Your task to perform on an android device: check data usage Image 0: 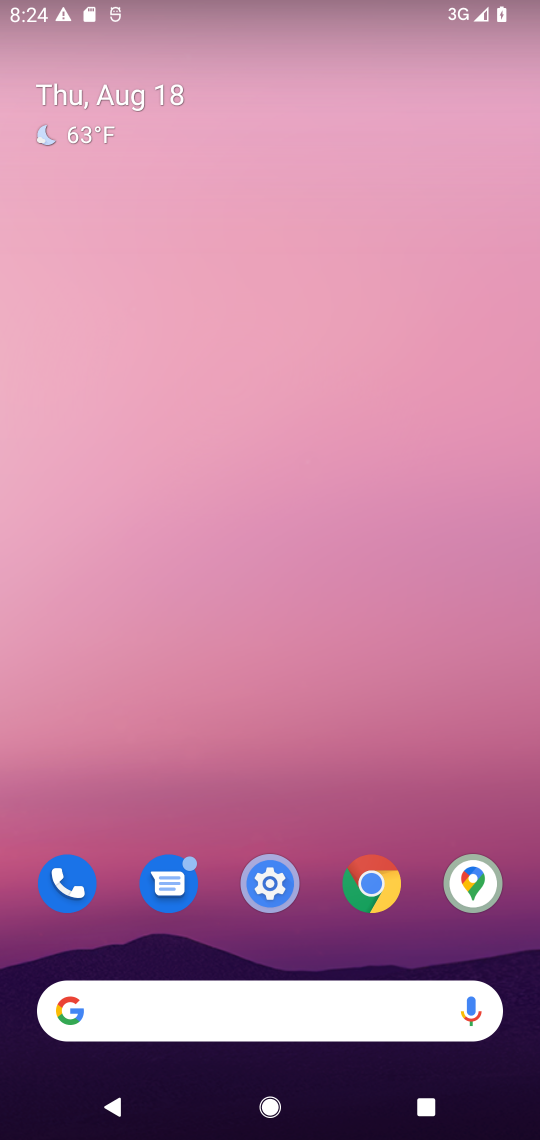
Step 0: click (296, 867)
Your task to perform on an android device: check data usage Image 1: 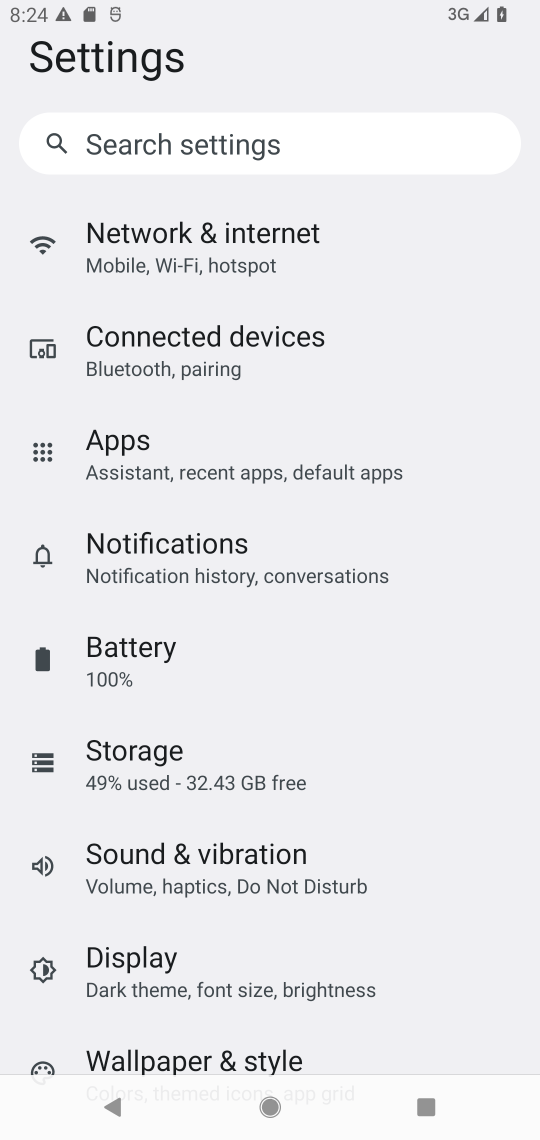
Step 1: click (217, 256)
Your task to perform on an android device: check data usage Image 2: 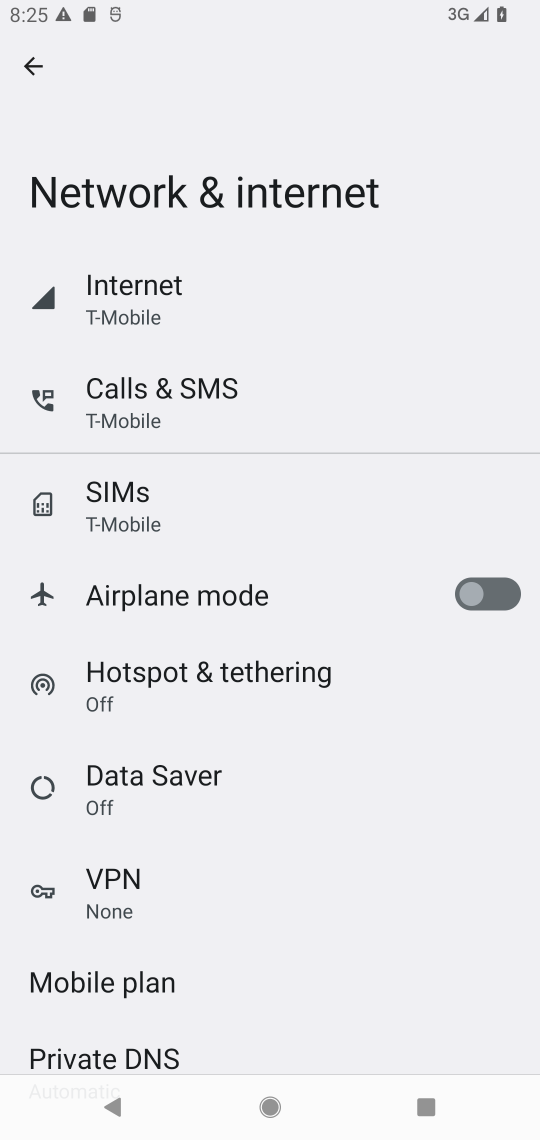
Step 2: click (134, 304)
Your task to perform on an android device: check data usage Image 3: 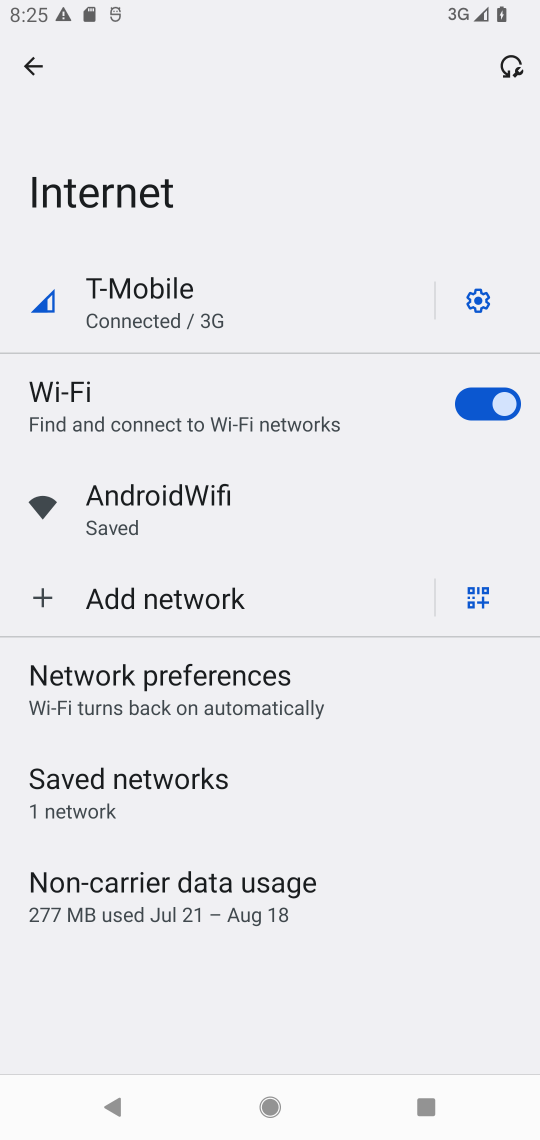
Step 3: click (216, 886)
Your task to perform on an android device: check data usage Image 4: 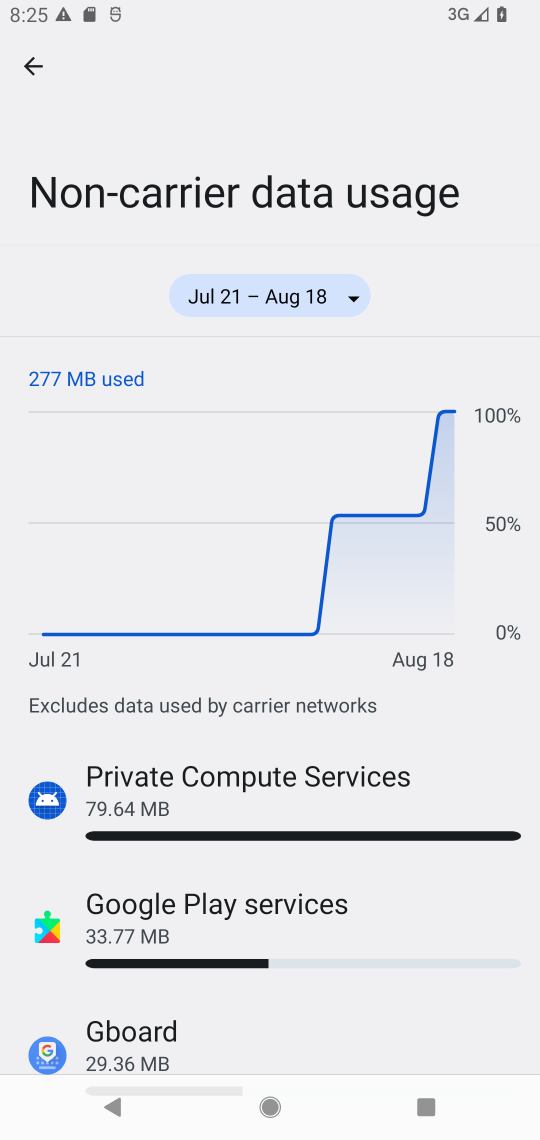
Step 4: task complete